Your task to perform on an android device: Find coffee shops on Maps Image 0: 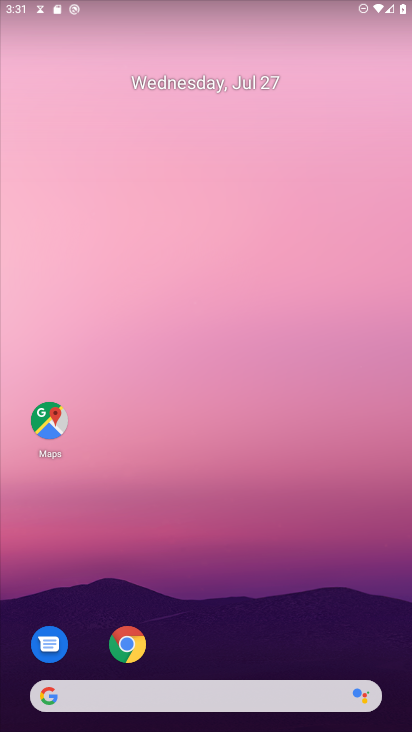
Step 0: click (52, 413)
Your task to perform on an android device: Find coffee shops on Maps Image 1: 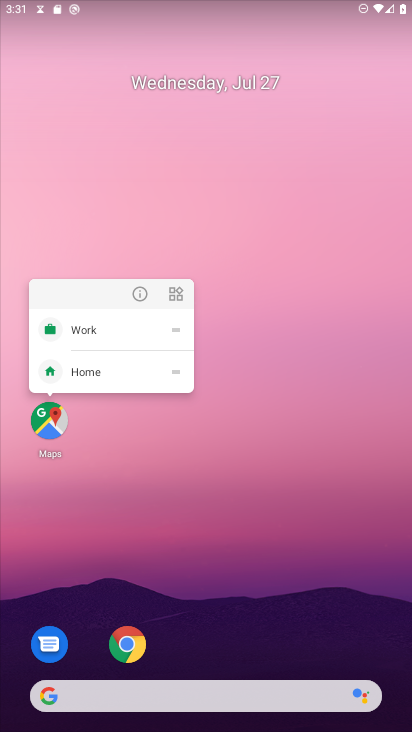
Step 1: click (47, 430)
Your task to perform on an android device: Find coffee shops on Maps Image 2: 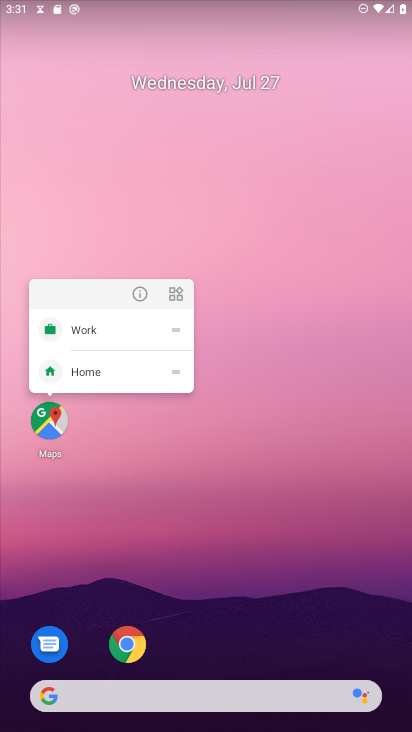
Step 2: click (47, 430)
Your task to perform on an android device: Find coffee shops on Maps Image 3: 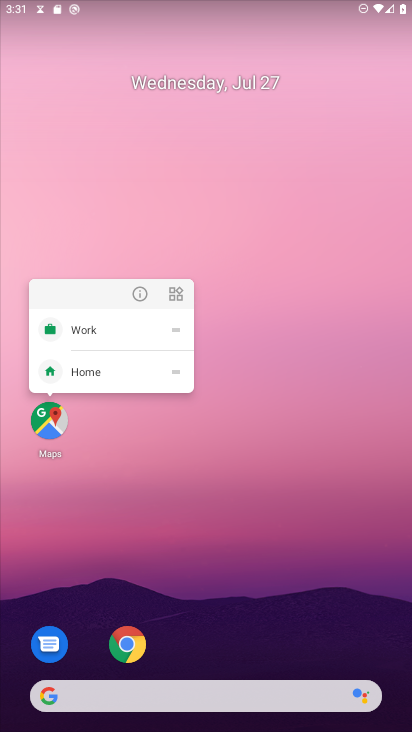
Step 3: click (50, 428)
Your task to perform on an android device: Find coffee shops on Maps Image 4: 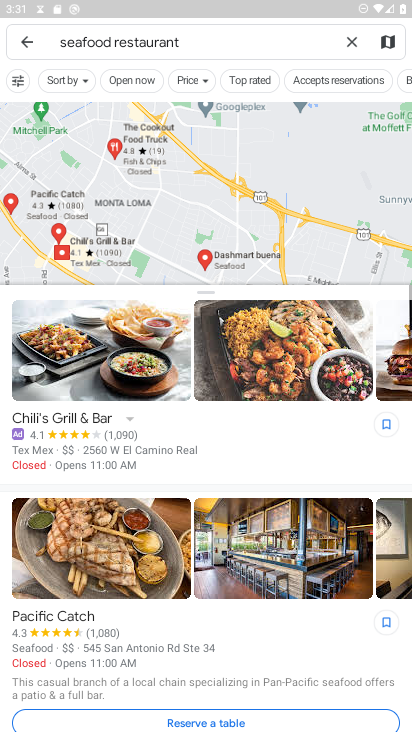
Step 4: click (346, 36)
Your task to perform on an android device: Find coffee shops on Maps Image 5: 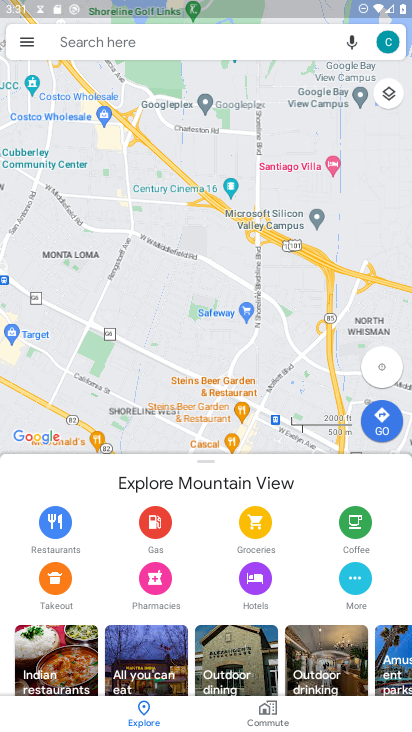
Step 5: click (150, 38)
Your task to perform on an android device: Find coffee shops on Maps Image 6: 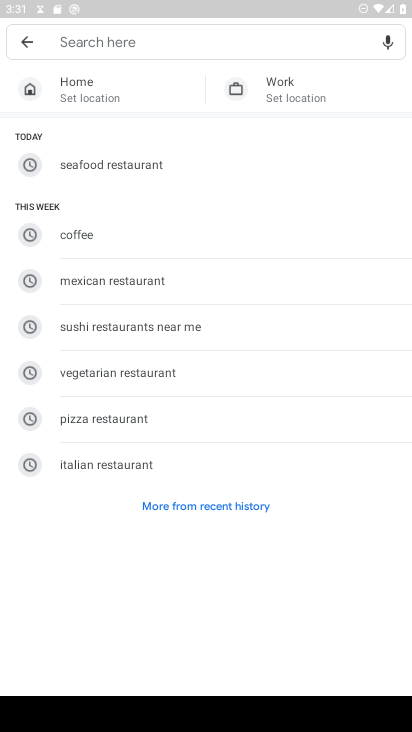
Step 6: type "coffee shops"
Your task to perform on an android device: Find coffee shops on Maps Image 7: 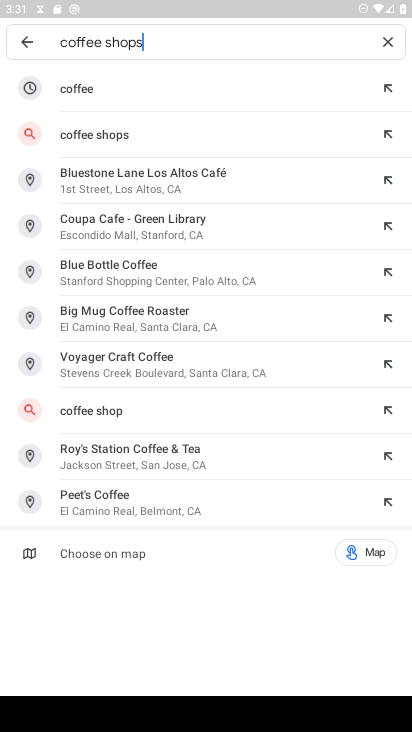
Step 7: click (197, 135)
Your task to perform on an android device: Find coffee shops on Maps Image 8: 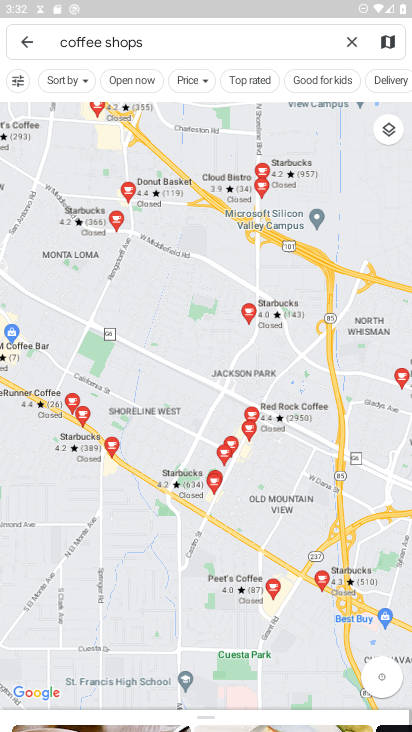
Step 8: task complete